Your task to perform on an android device: Go to Amazon Image 0: 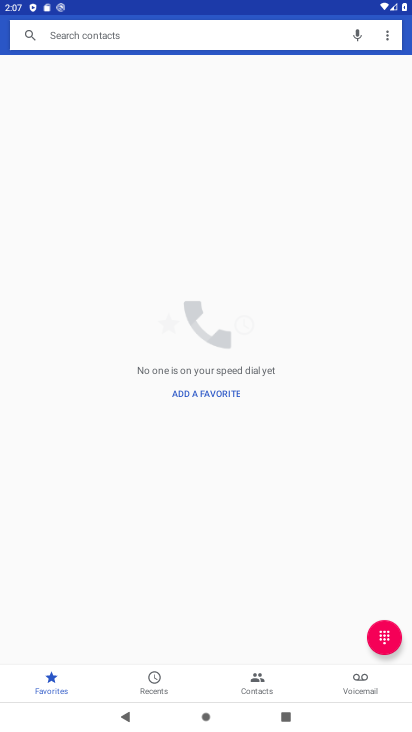
Step 0: press home button
Your task to perform on an android device: Go to Amazon Image 1: 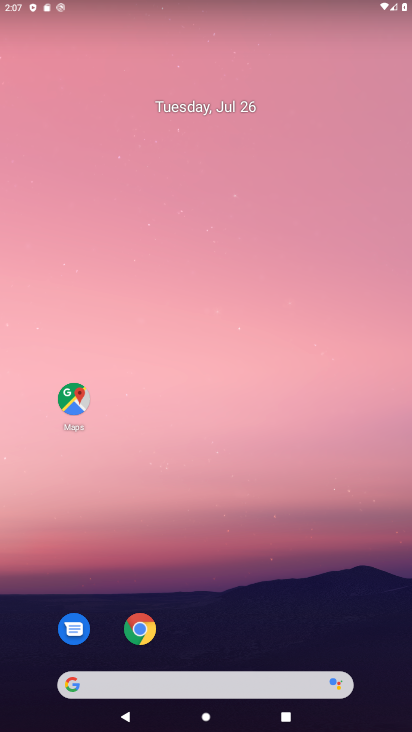
Step 1: click (142, 630)
Your task to perform on an android device: Go to Amazon Image 2: 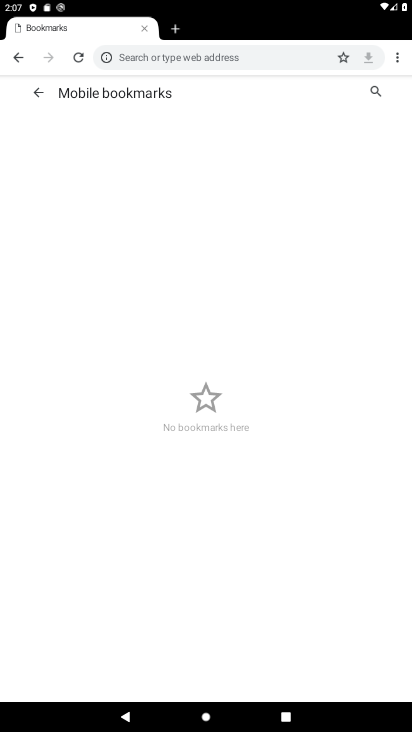
Step 2: click (256, 59)
Your task to perform on an android device: Go to Amazon Image 3: 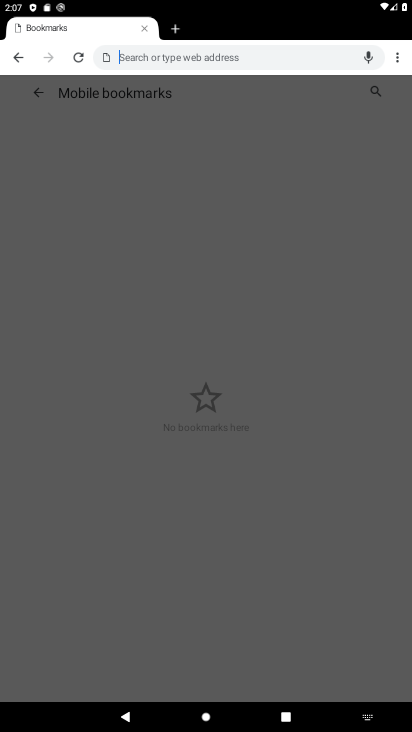
Step 3: type "amazon"
Your task to perform on an android device: Go to Amazon Image 4: 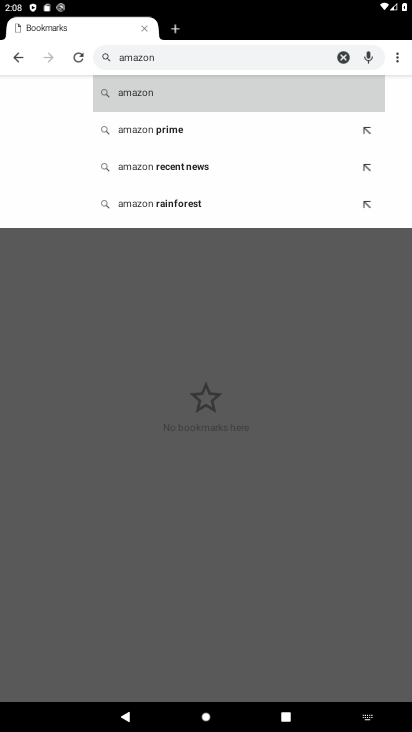
Step 4: click (256, 99)
Your task to perform on an android device: Go to Amazon Image 5: 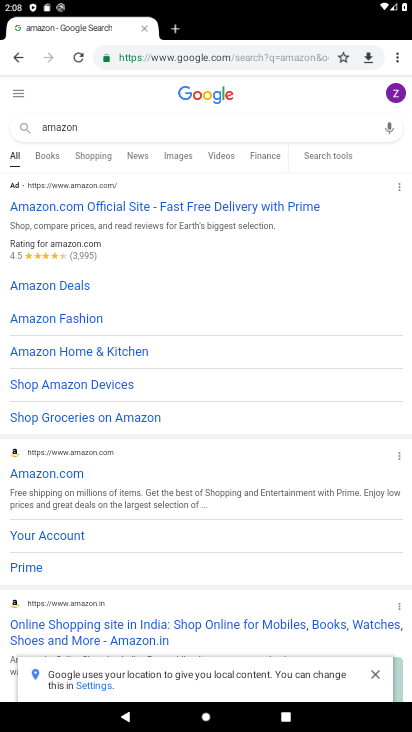
Step 5: click (108, 209)
Your task to perform on an android device: Go to Amazon Image 6: 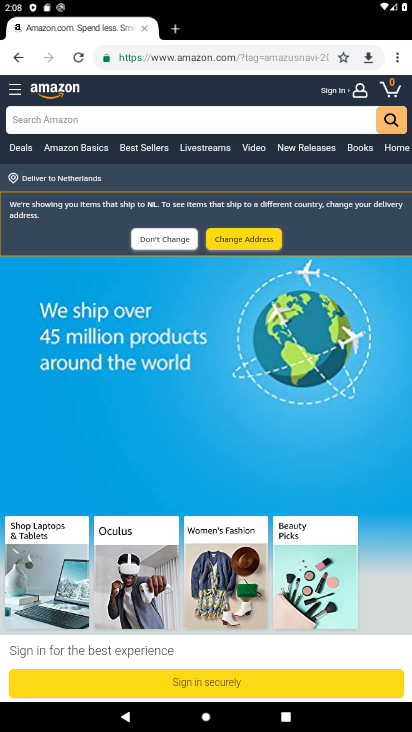
Step 6: task complete